Your task to perform on an android device: Open Maps and search for coffee Image 0: 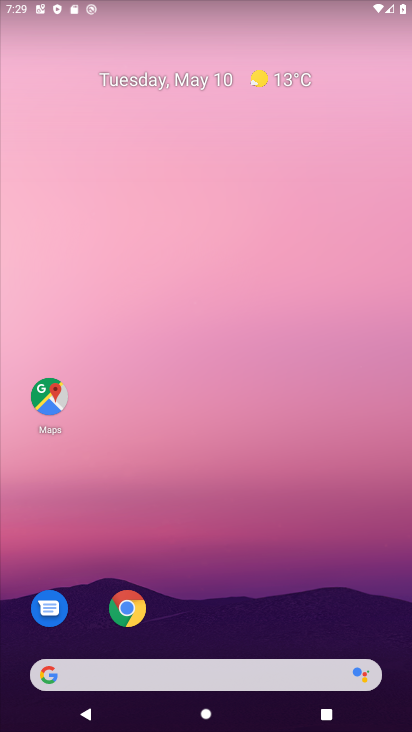
Step 0: click (44, 412)
Your task to perform on an android device: Open Maps and search for coffee Image 1: 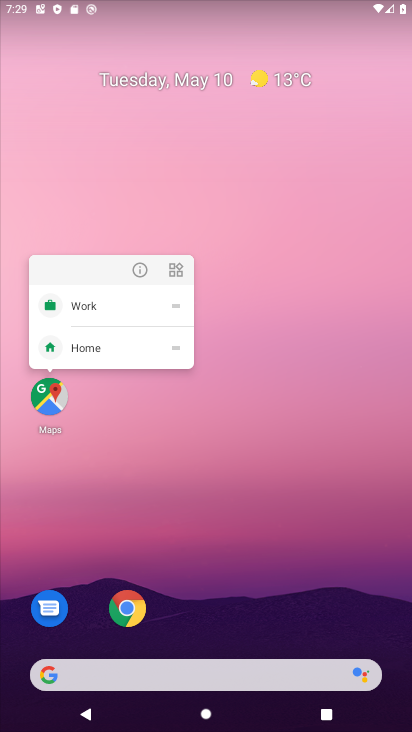
Step 1: click (52, 402)
Your task to perform on an android device: Open Maps and search for coffee Image 2: 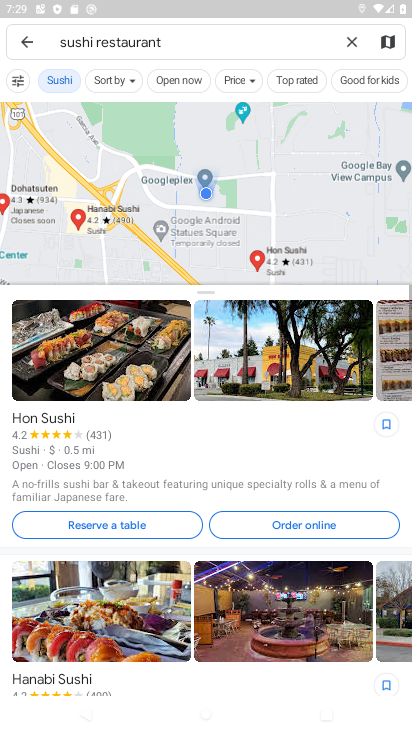
Step 2: click (353, 46)
Your task to perform on an android device: Open Maps and search for coffee Image 3: 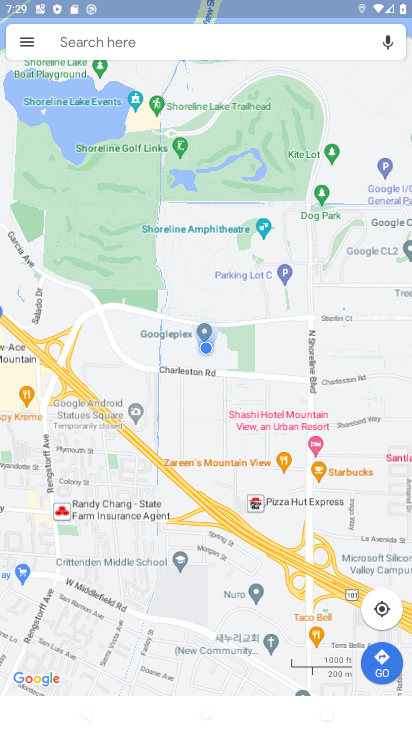
Step 3: click (178, 47)
Your task to perform on an android device: Open Maps and search for coffee Image 4: 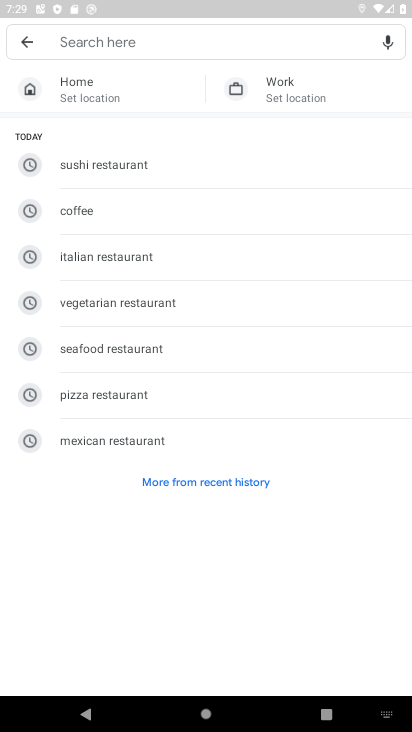
Step 4: click (97, 205)
Your task to perform on an android device: Open Maps and search for coffee Image 5: 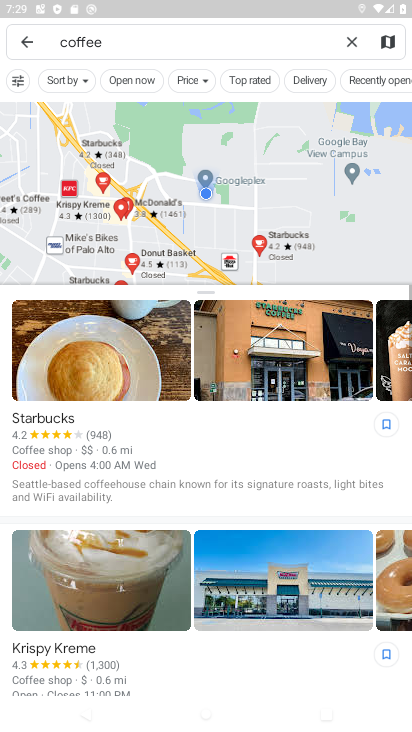
Step 5: task complete